Your task to perform on an android device: star an email in the gmail app Image 0: 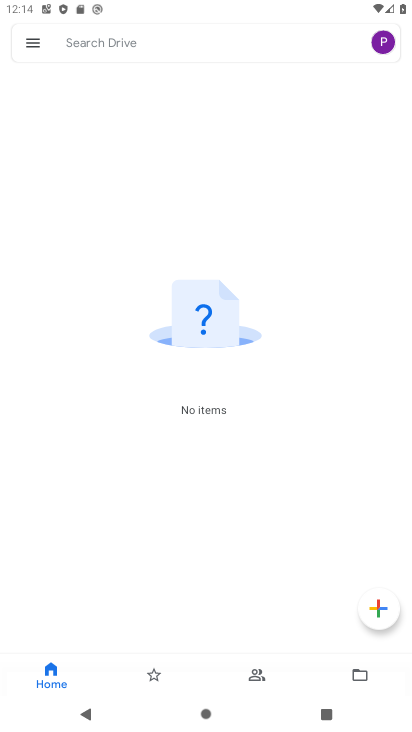
Step 0: press home button
Your task to perform on an android device: star an email in the gmail app Image 1: 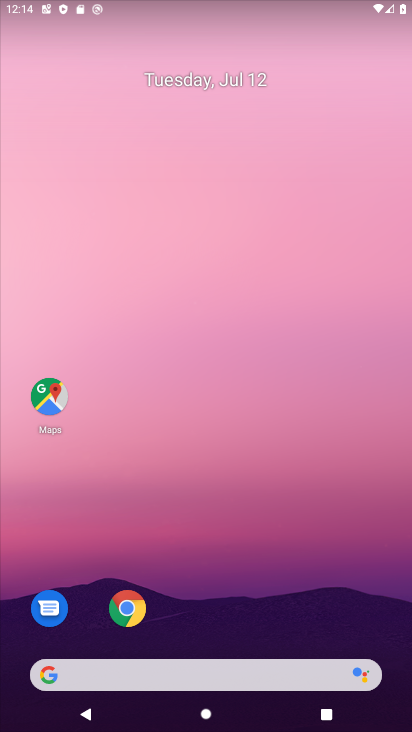
Step 1: drag from (164, 608) to (234, 26)
Your task to perform on an android device: star an email in the gmail app Image 2: 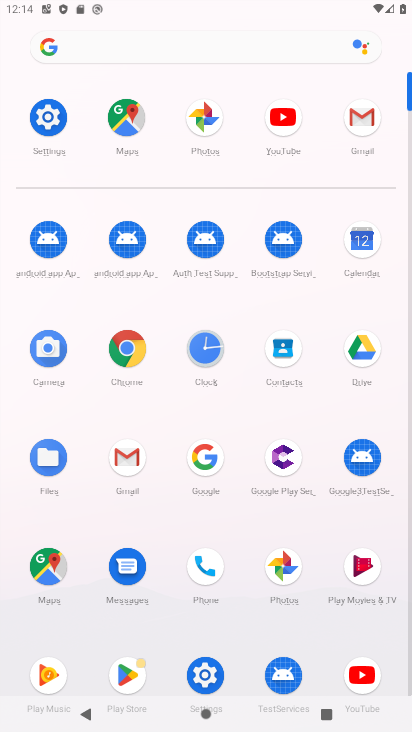
Step 2: click (357, 136)
Your task to perform on an android device: star an email in the gmail app Image 3: 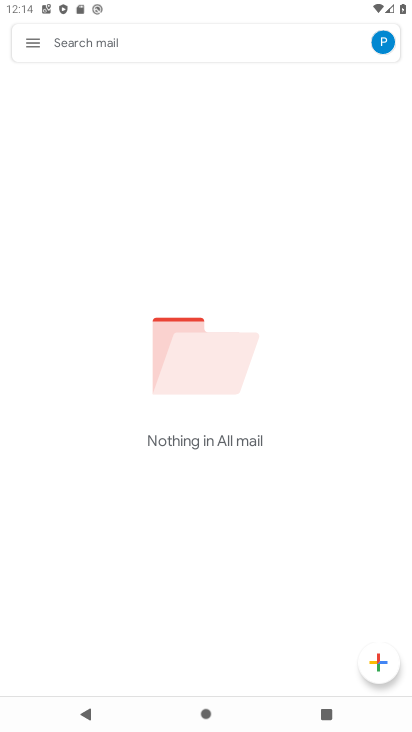
Step 3: task complete